Your task to perform on an android device: Toggle the flashlight Image 0: 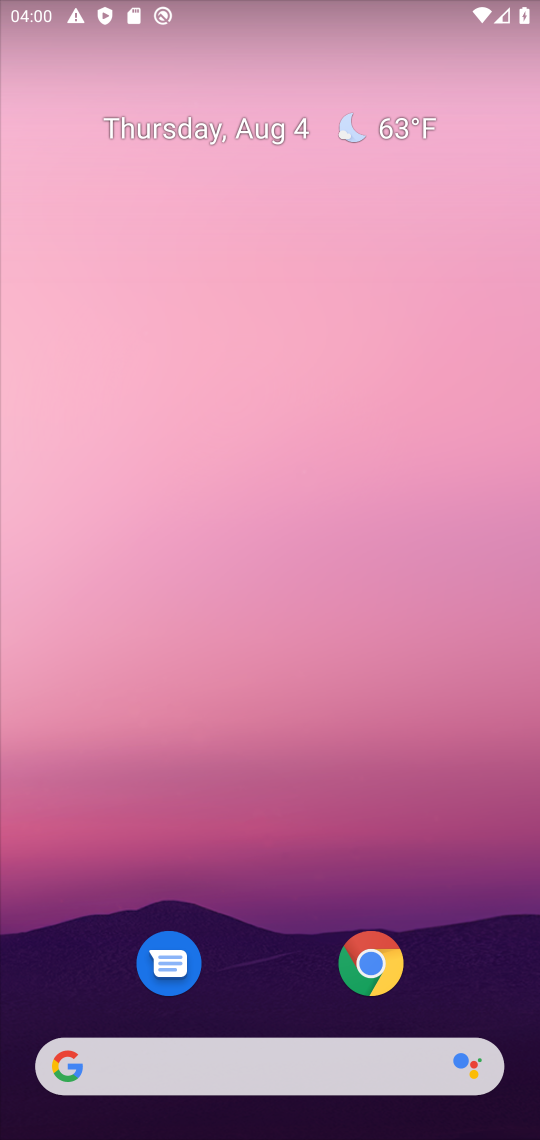
Step 0: drag from (229, 1) to (248, 1085)
Your task to perform on an android device: Toggle the flashlight Image 1: 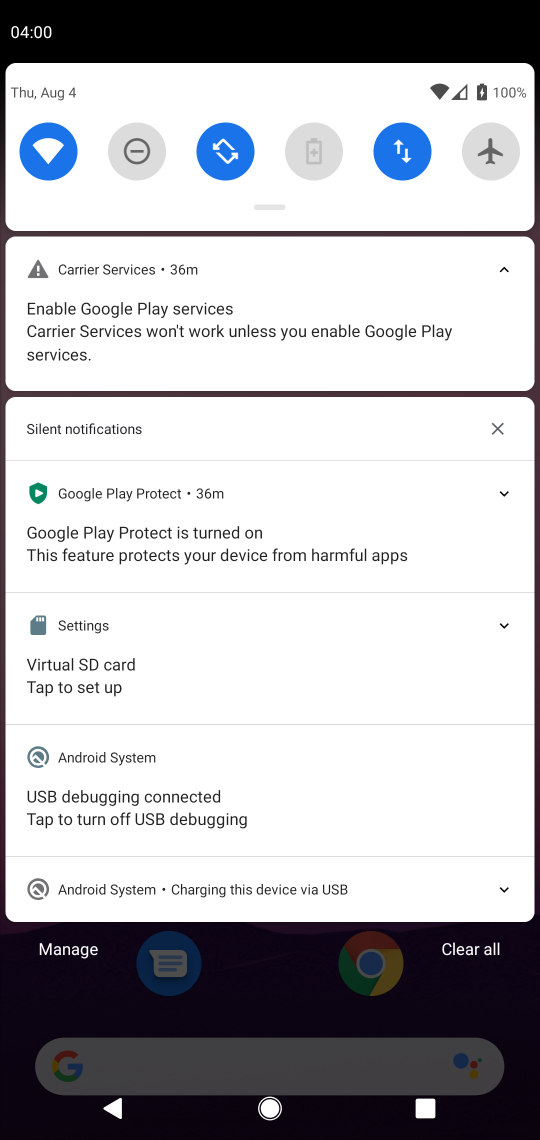
Step 1: task complete